Your task to perform on an android device: change text size in settings app Image 0: 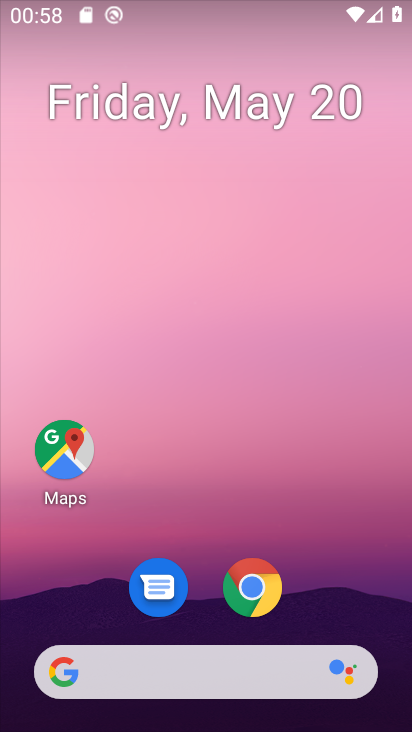
Step 0: drag from (383, 599) to (370, 123)
Your task to perform on an android device: change text size in settings app Image 1: 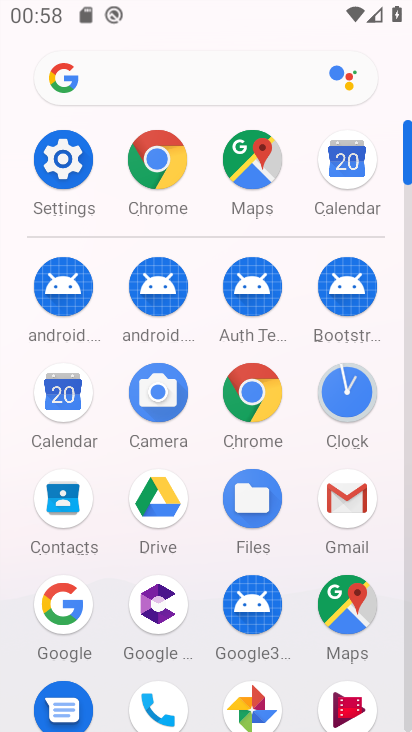
Step 1: click (74, 188)
Your task to perform on an android device: change text size in settings app Image 2: 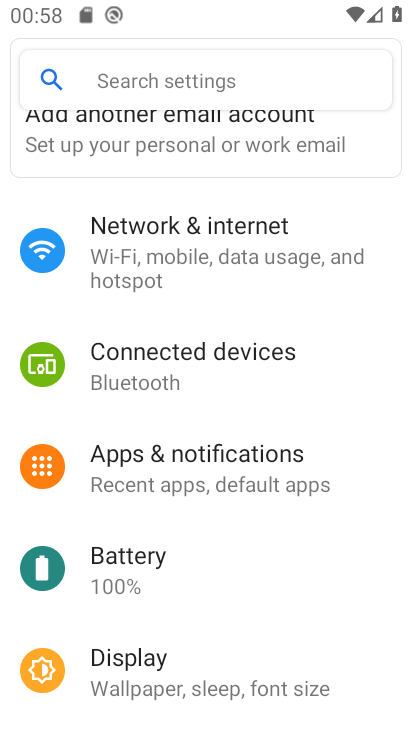
Step 2: drag from (354, 589) to (366, 412)
Your task to perform on an android device: change text size in settings app Image 3: 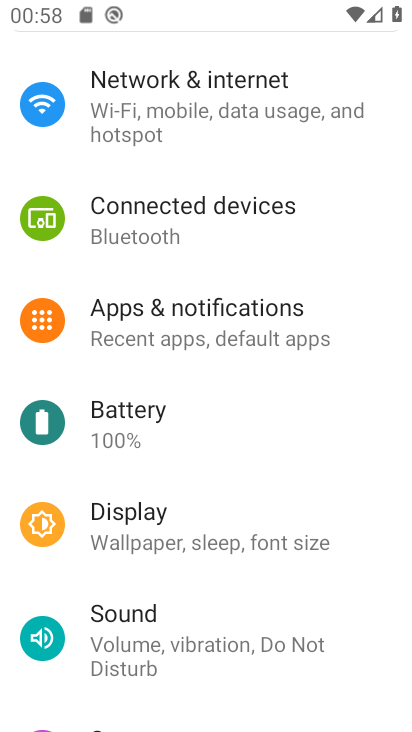
Step 3: drag from (382, 598) to (371, 423)
Your task to perform on an android device: change text size in settings app Image 4: 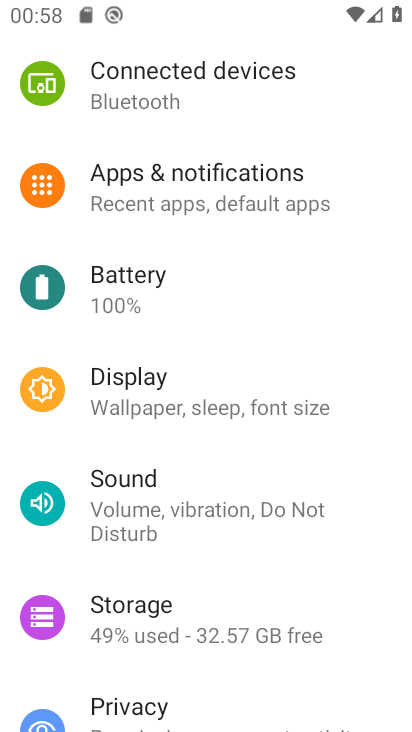
Step 4: drag from (370, 586) to (360, 475)
Your task to perform on an android device: change text size in settings app Image 5: 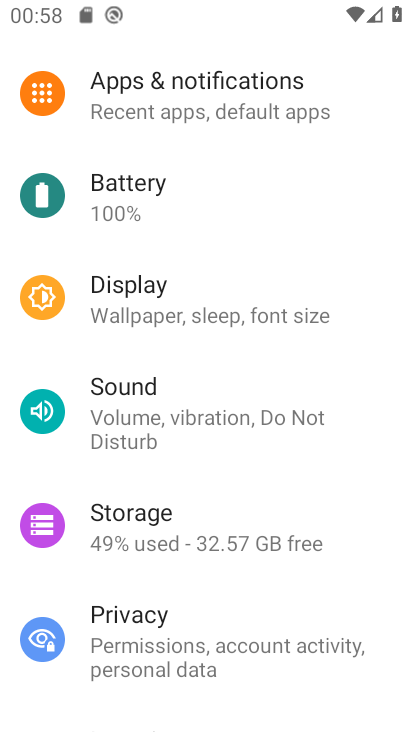
Step 5: drag from (356, 659) to (350, 518)
Your task to perform on an android device: change text size in settings app Image 6: 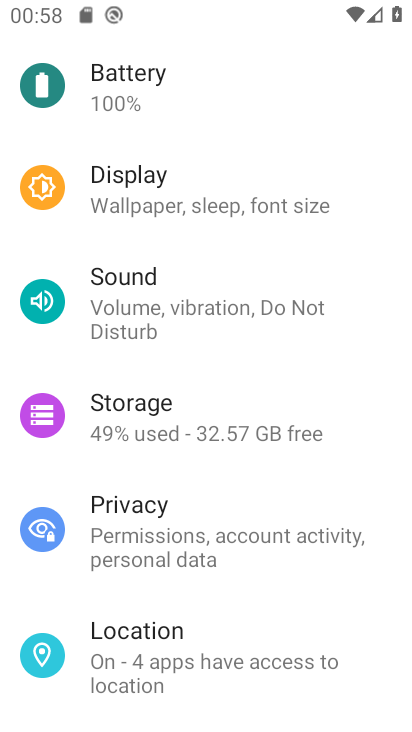
Step 6: drag from (346, 654) to (351, 480)
Your task to perform on an android device: change text size in settings app Image 7: 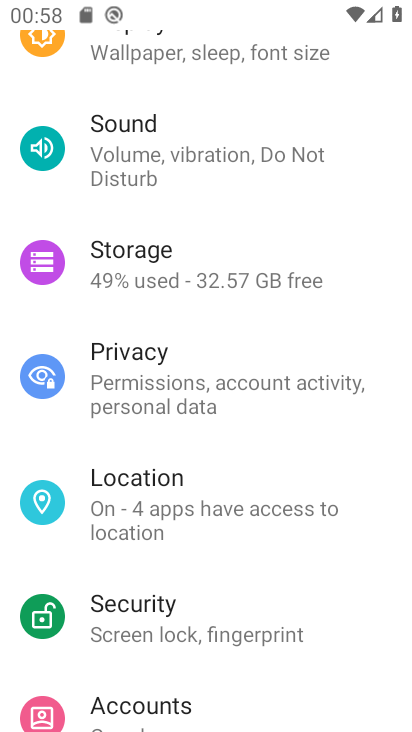
Step 7: drag from (367, 648) to (374, 526)
Your task to perform on an android device: change text size in settings app Image 8: 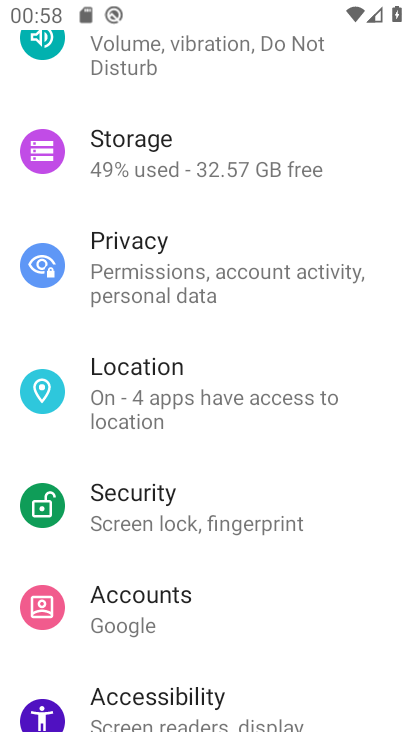
Step 8: drag from (355, 429) to (356, 526)
Your task to perform on an android device: change text size in settings app Image 9: 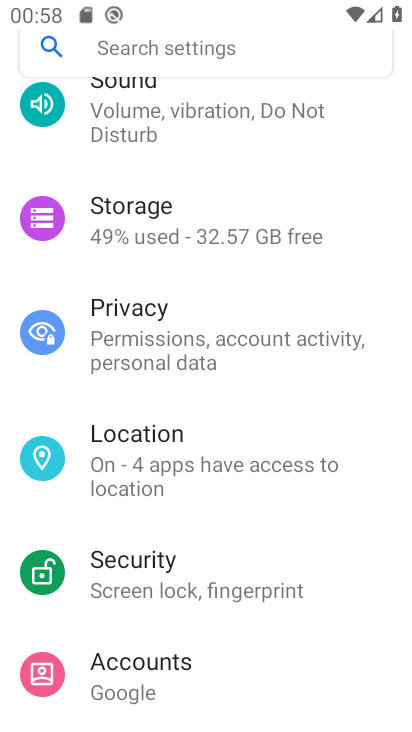
Step 9: drag from (355, 381) to (365, 479)
Your task to perform on an android device: change text size in settings app Image 10: 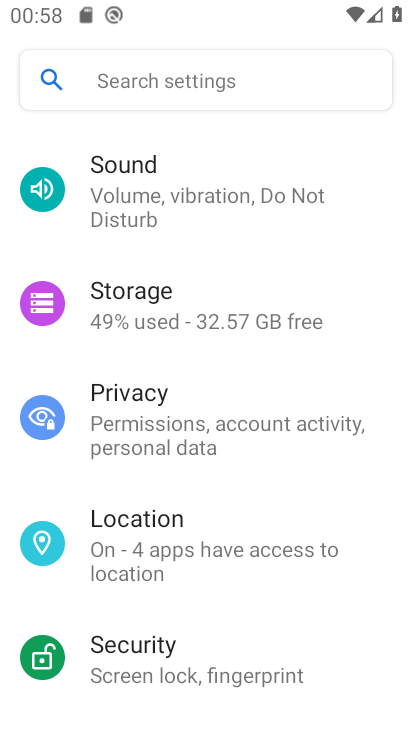
Step 10: drag from (362, 357) to (360, 463)
Your task to perform on an android device: change text size in settings app Image 11: 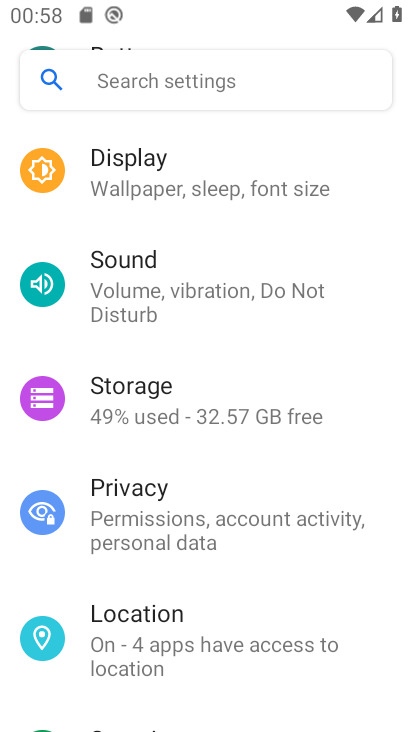
Step 11: drag from (357, 347) to (355, 438)
Your task to perform on an android device: change text size in settings app Image 12: 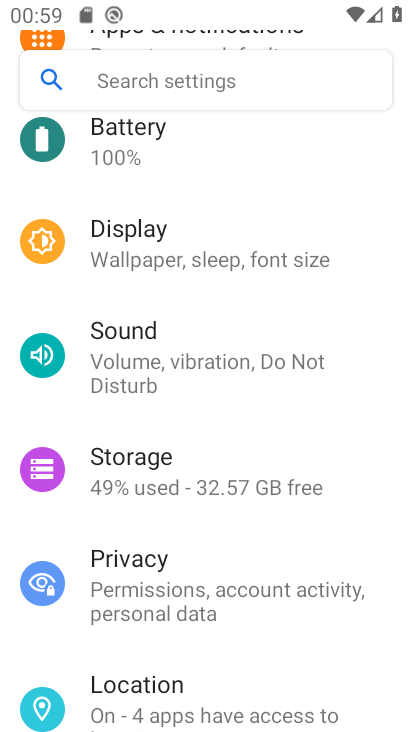
Step 12: drag from (355, 354) to (353, 446)
Your task to perform on an android device: change text size in settings app Image 13: 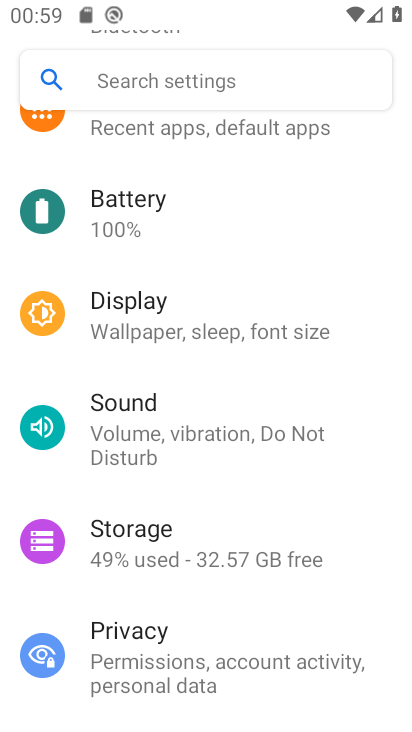
Step 13: click (324, 354)
Your task to perform on an android device: change text size in settings app Image 14: 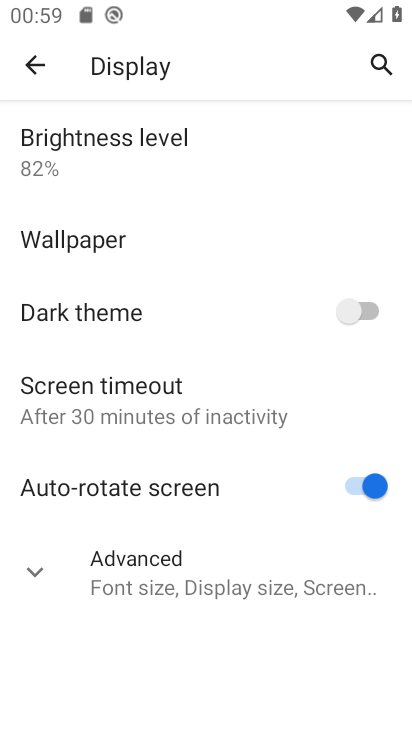
Step 14: click (221, 574)
Your task to perform on an android device: change text size in settings app Image 15: 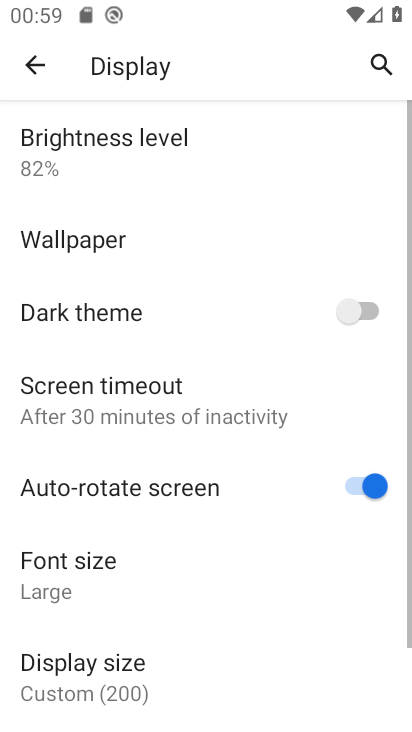
Step 15: drag from (216, 596) to (217, 491)
Your task to perform on an android device: change text size in settings app Image 16: 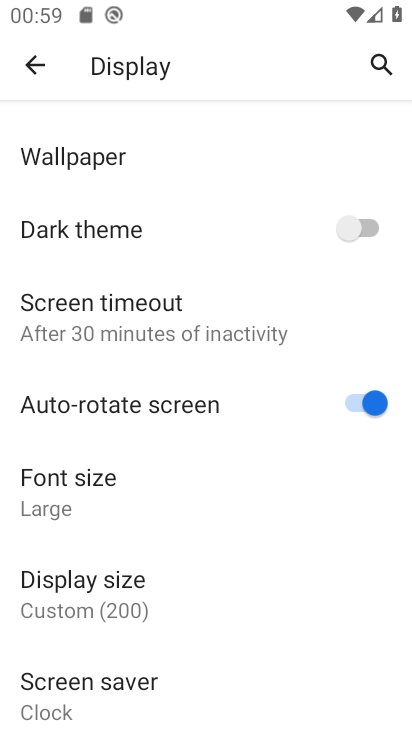
Step 16: click (96, 510)
Your task to perform on an android device: change text size in settings app Image 17: 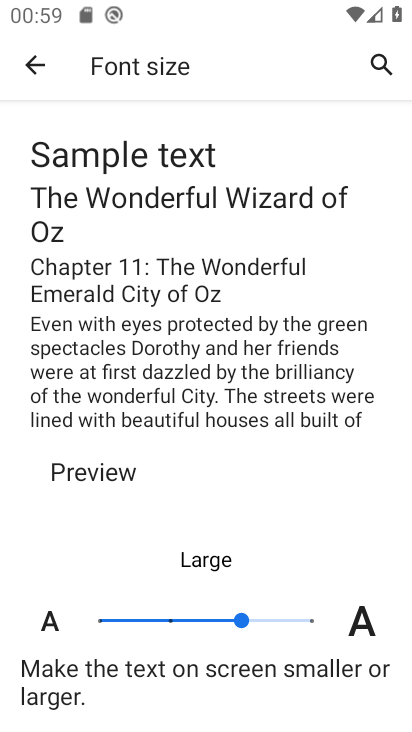
Step 17: click (182, 619)
Your task to perform on an android device: change text size in settings app Image 18: 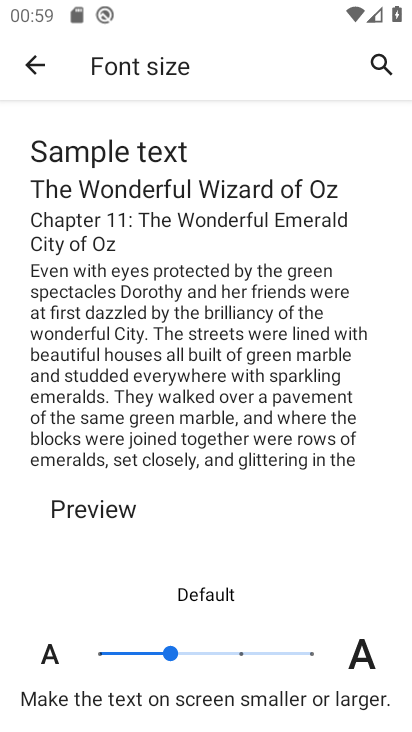
Step 18: task complete